Your task to perform on an android device: What's the weather? Image 0: 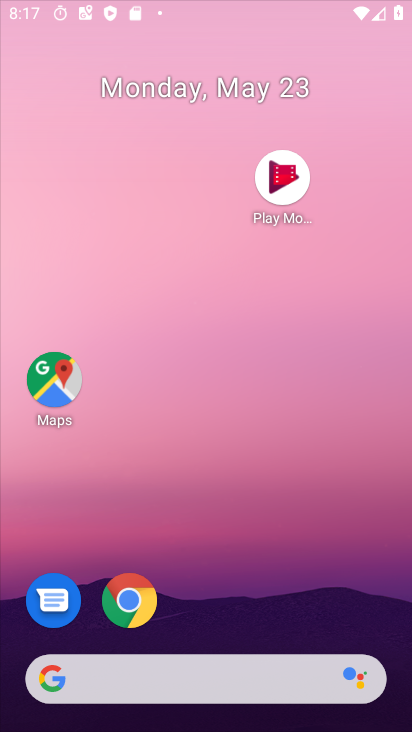
Step 0: drag from (377, 671) to (276, 181)
Your task to perform on an android device: What's the weather? Image 1: 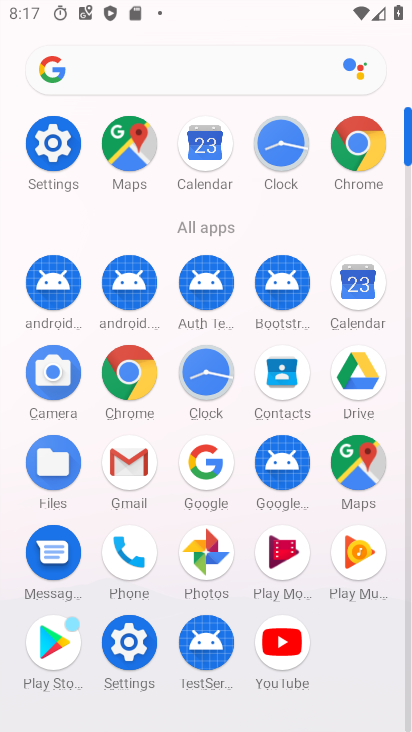
Step 1: press back button
Your task to perform on an android device: What's the weather? Image 2: 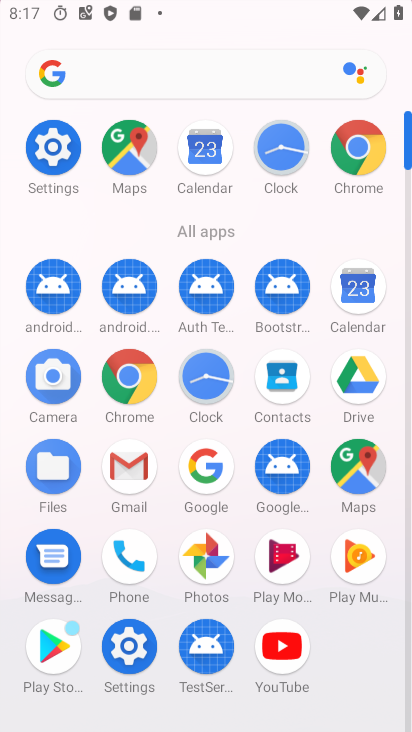
Step 2: press back button
Your task to perform on an android device: What's the weather? Image 3: 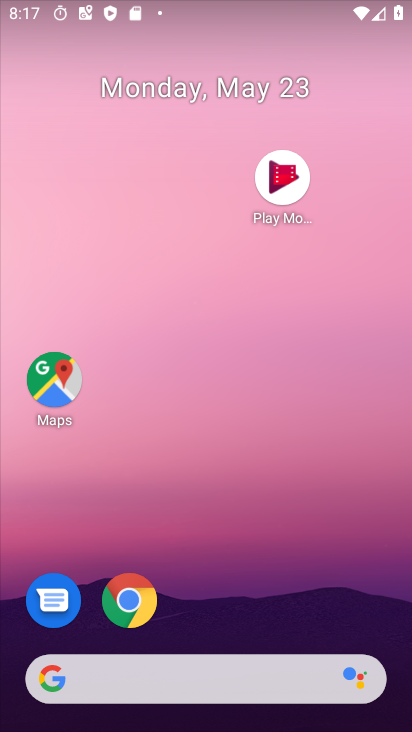
Step 3: drag from (2, 192) to (397, 125)
Your task to perform on an android device: What's the weather? Image 4: 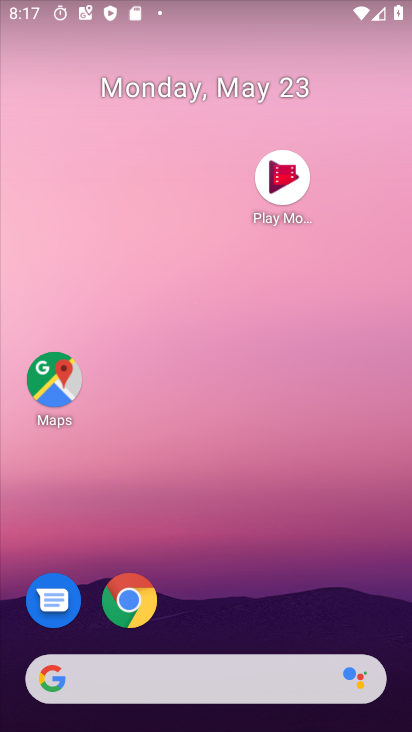
Step 4: drag from (106, 227) to (390, 289)
Your task to perform on an android device: What's the weather? Image 5: 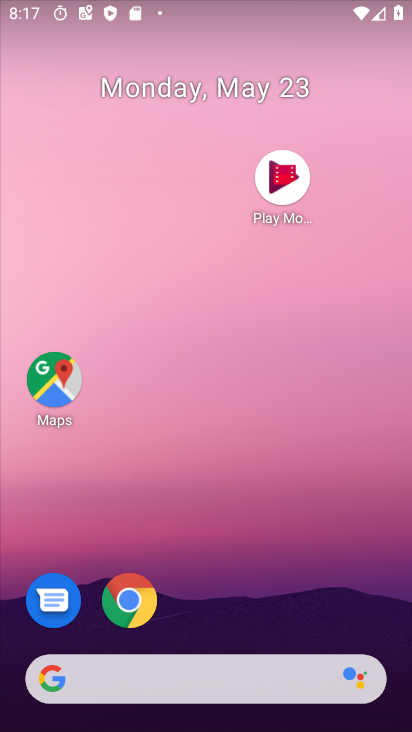
Step 5: drag from (2, 171) to (406, 308)
Your task to perform on an android device: What's the weather? Image 6: 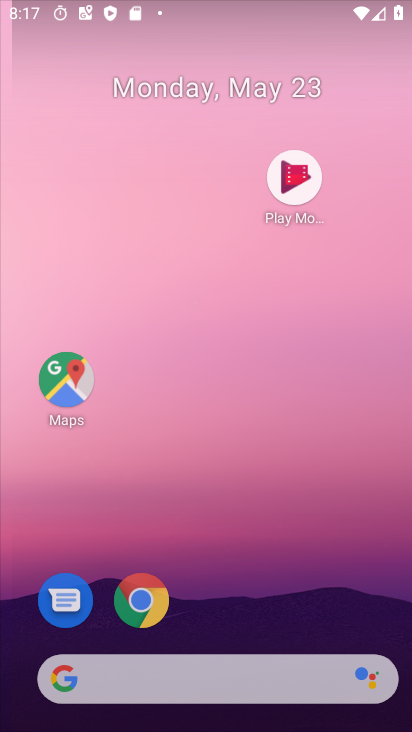
Step 6: drag from (11, 224) to (392, 519)
Your task to perform on an android device: What's the weather? Image 7: 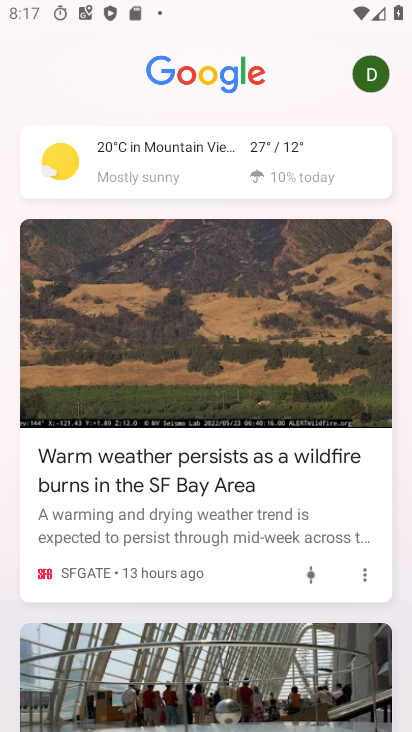
Step 7: click (171, 160)
Your task to perform on an android device: What's the weather? Image 8: 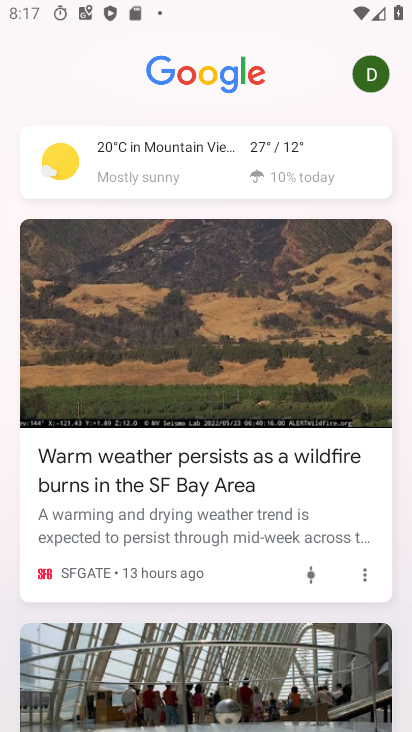
Step 8: click (171, 160)
Your task to perform on an android device: What's the weather? Image 9: 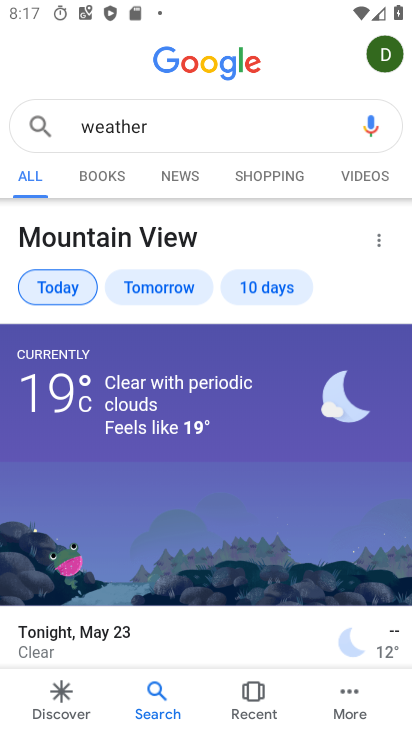
Step 9: task complete